Your task to perform on an android device: Open the stopwatch Image 0: 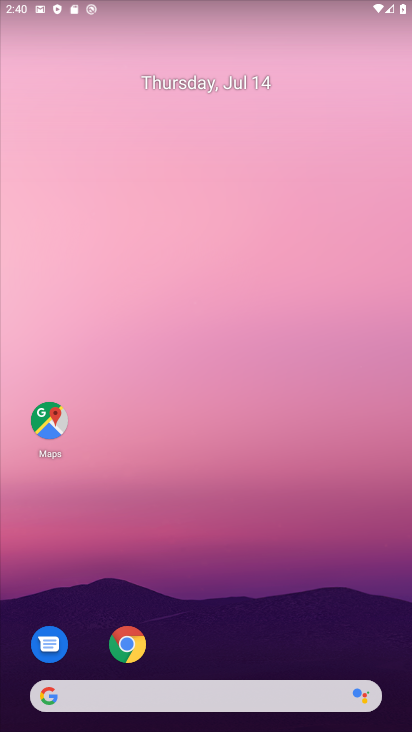
Step 0: drag from (210, 639) to (220, 164)
Your task to perform on an android device: Open the stopwatch Image 1: 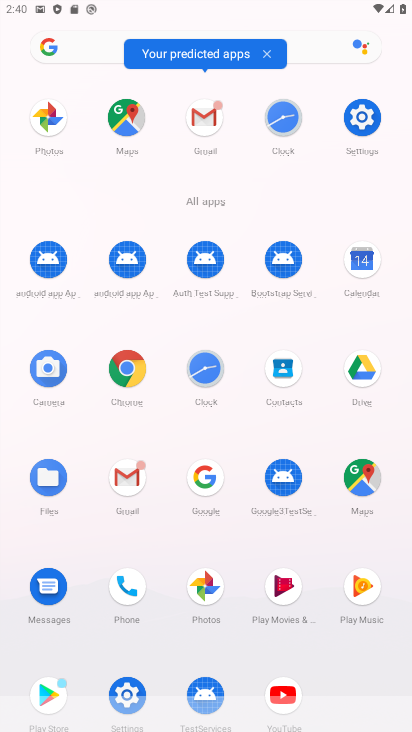
Step 1: click (280, 120)
Your task to perform on an android device: Open the stopwatch Image 2: 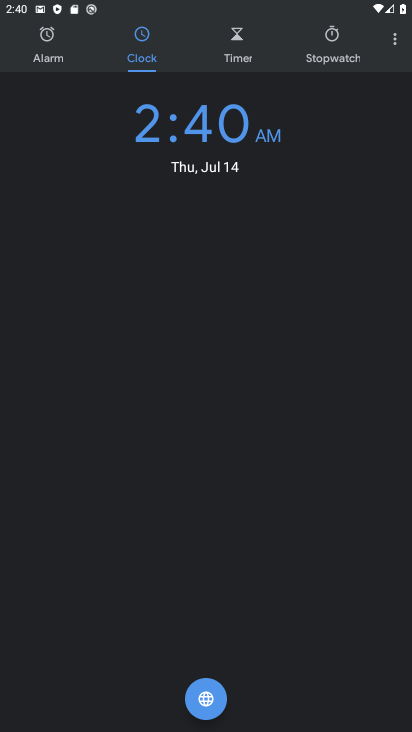
Step 2: click (329, 62)
Your task to perform on an android device: Open the stopwatch Image 3: 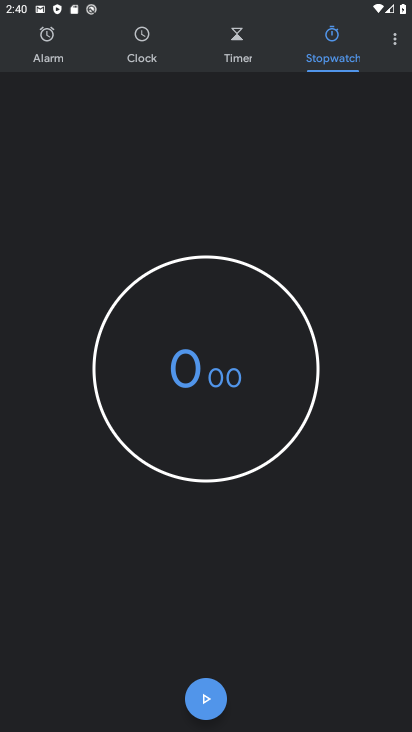
Step 3: task complete